Your task to perform on an android device: Go to Maps Image 0: 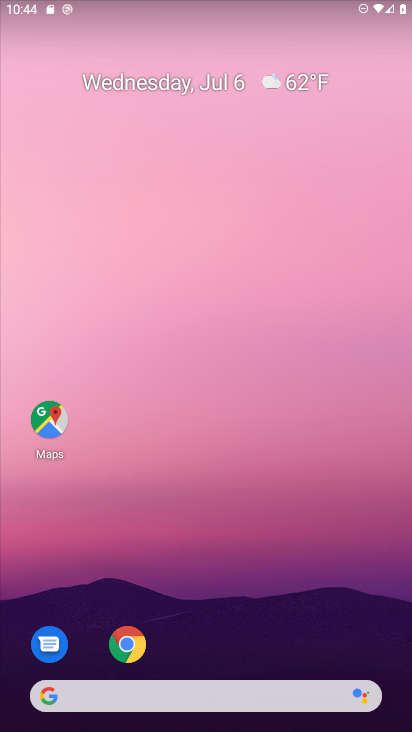
Step 0: press home button
Your task to perform on an android device: Go to Maps Image 1: 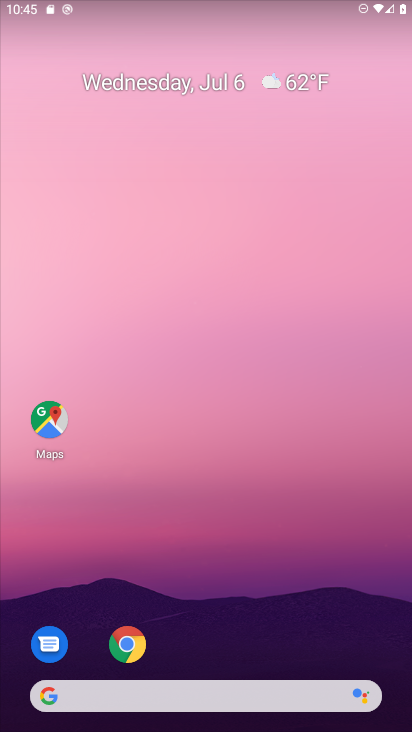
Step 1: click (53, 403)
Your task to perform on an android device: Go to Maps Image 2: 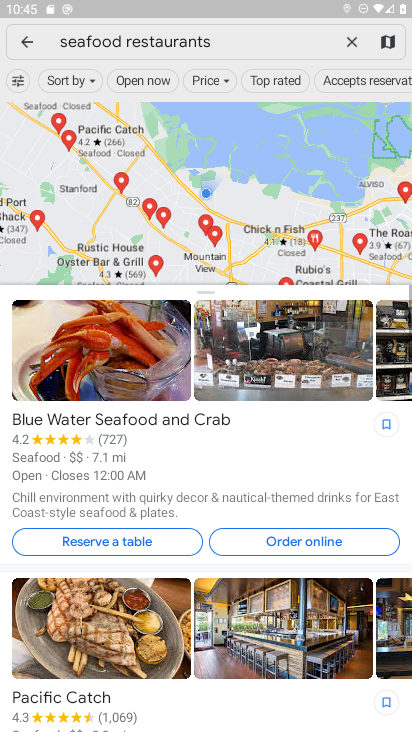
Step 2: click (26, 45)
Your task to perform on an android device: Go to Maps Image 3: 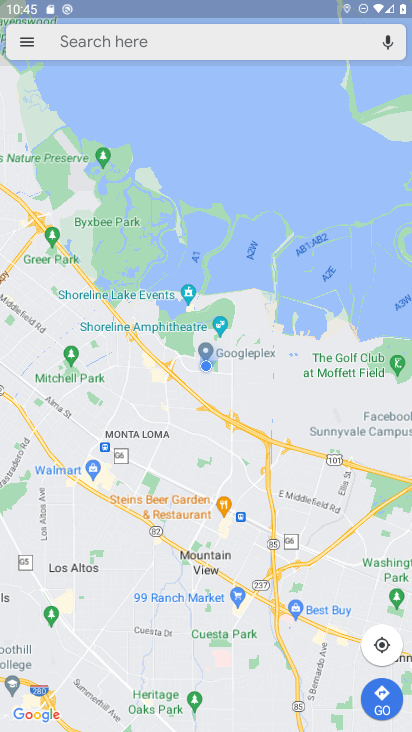
Step 3: task complete